Your task to perform on an android device: Toggle the flashlight Image 0: 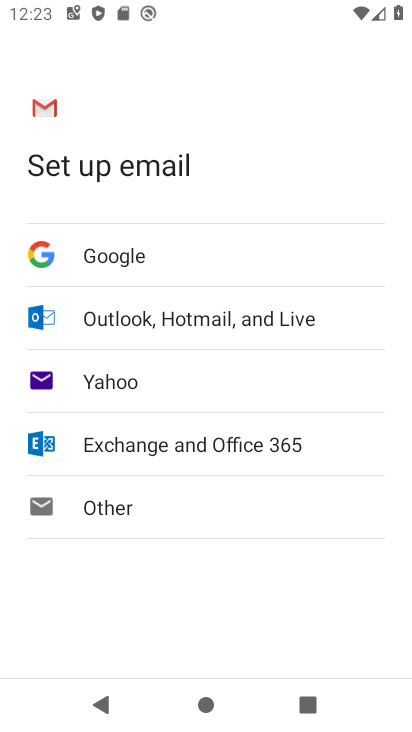
Step 0: press home button
Your task to perform on an android device: Toggle the flashlight Image 1: 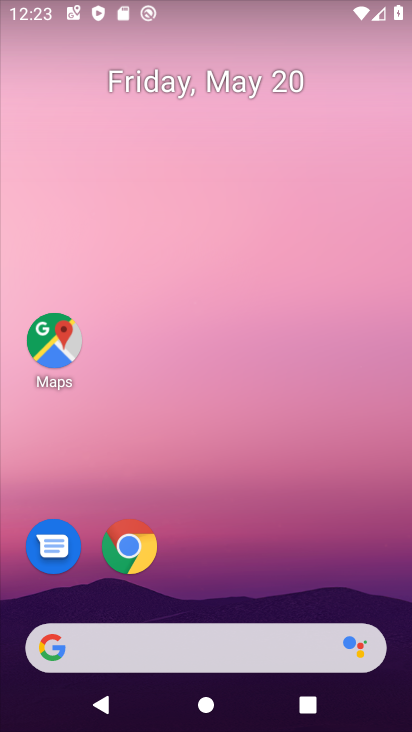
Step 1: drag from (258, 518) to (248, 27)
Your task to perform on an android device: Toggle the flashlight Image 2: 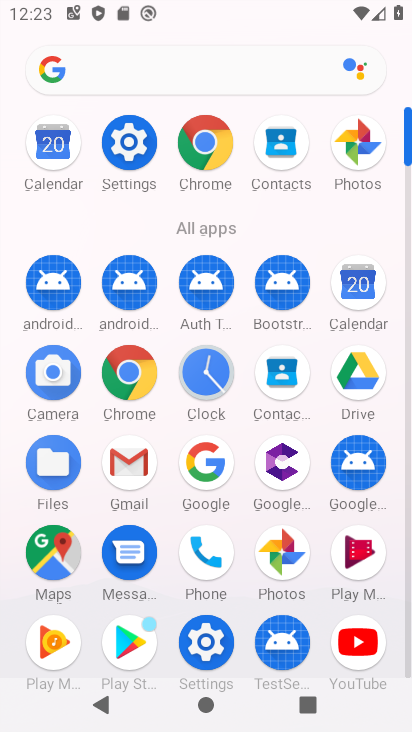
Step 2: click (141, 152)
Your task to perform on an android device: Toggle the flashlight Image 3: 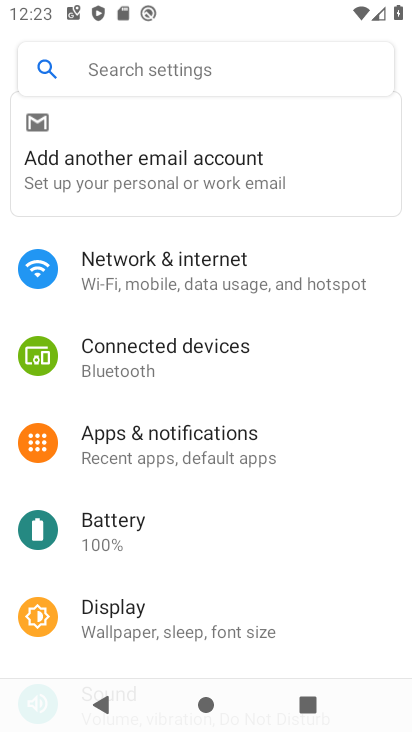
Step 3: click (215, 61)
Your task to perform on an android device: Toggle the flashlight Image 4: 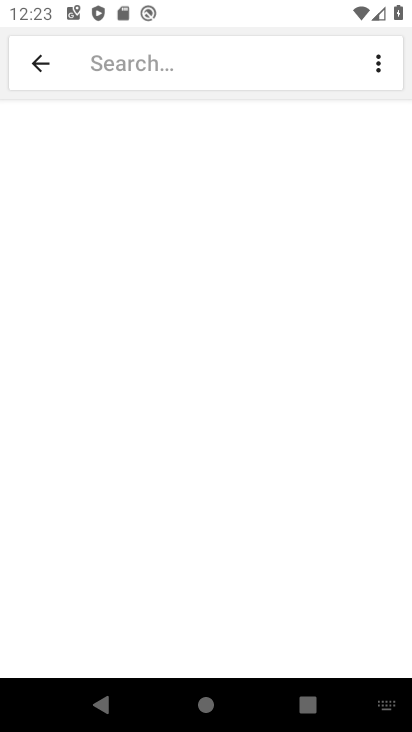
Step 4: type "Flashlight"
Your task to perform on an android device: Toggle the flashlight Image 5: 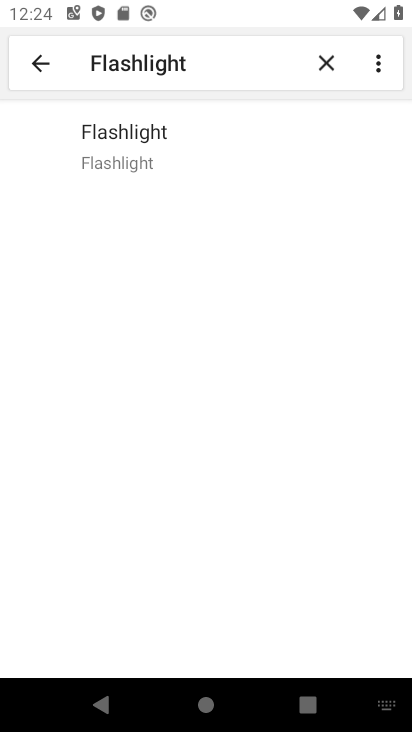
Step 5: click (138, 146)
Your task to perform on an android device: Toggle the flashlight Image 6: 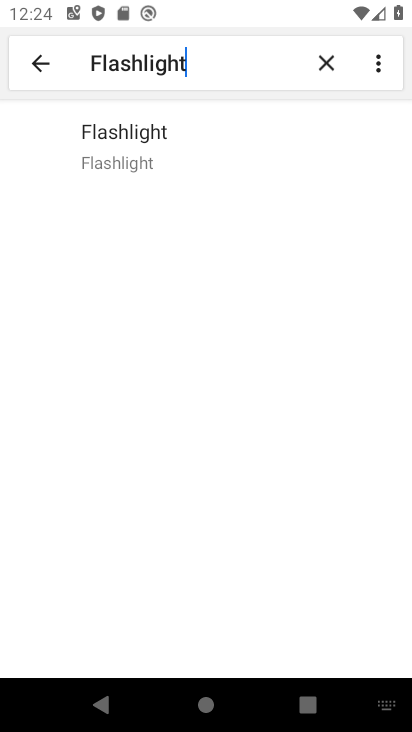
Step 6: task complete